Your task to perform on an android device: find photos in the google photos app Image 0: 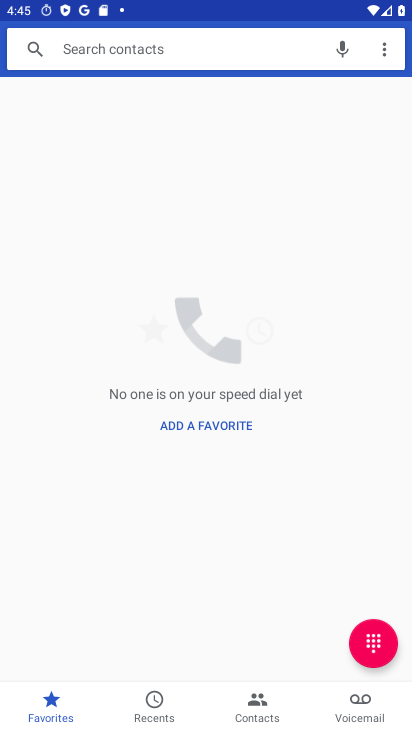
Step 0: press home button
Your task to perform on an android device: find photos in the google photos app Image 1: 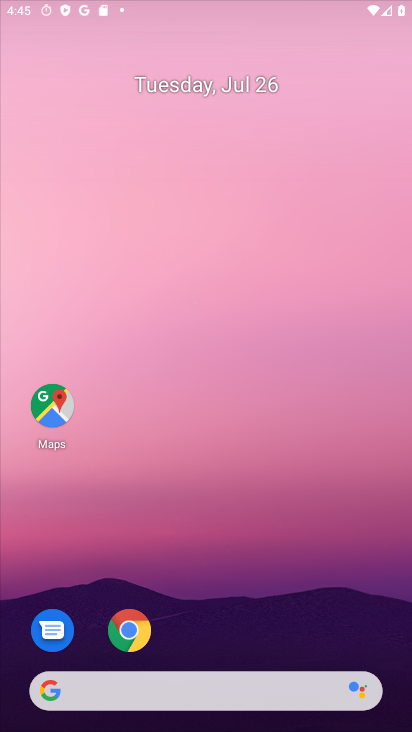
Step 1: drag from (295, 598) to (170, 120)
Your task to perform on an android device: find photos in the google photos app Image 2: 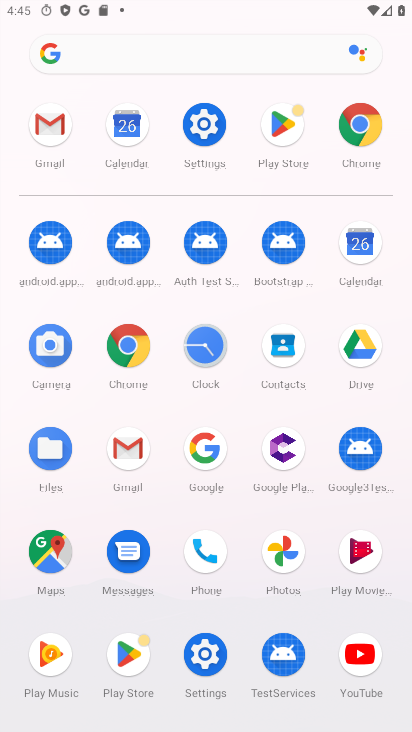
Step 2: click (289, 551)
Your task to perform on an android device: find photos in the google photos app Image 3: 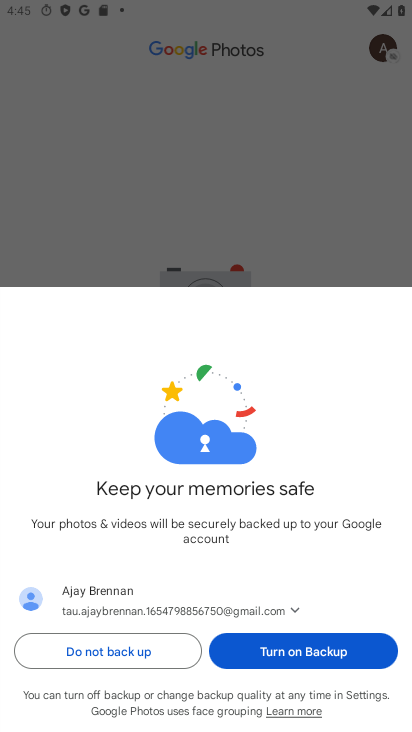
Step 3: click (251, 652)
Your task to perform on an android device: find photos in the google photos app Image 4: 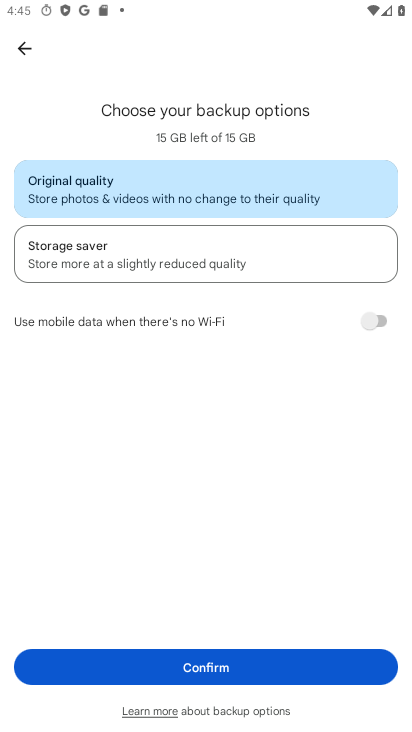
Step 4: click (240, 667)
Your task to perform on an android device: find photos in the google photos app Image 5: 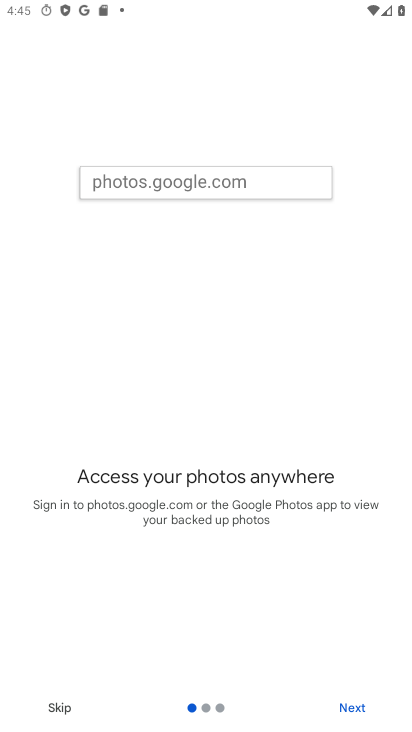
Step 5: click (359, 708)
Your task to perform on an android device: find photos in the google photos app Image 6: 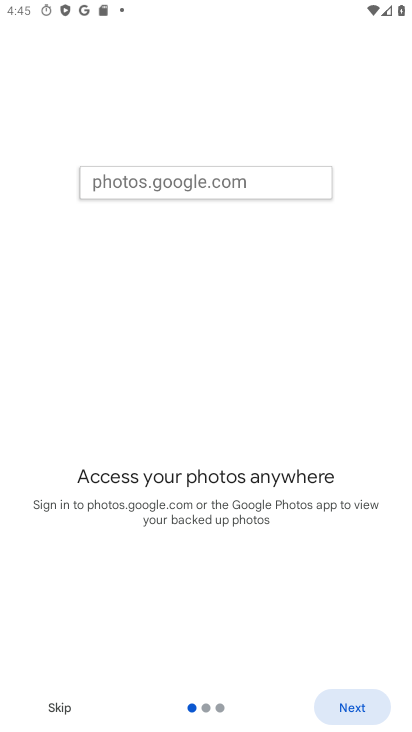
Step 6: click (359, 708)
Your task to perform on an android device: find photos in the google photos app Image 7: 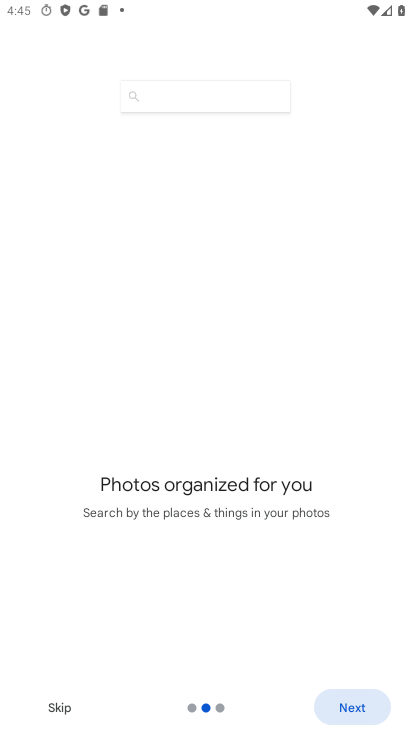
Step 7: click (359, 703)
Your task to perform on an android device: find photos in the google photos app Image 8: 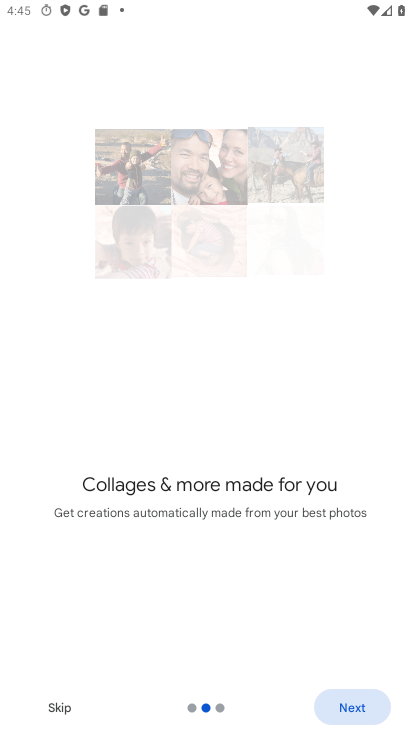
Step 8: click (359, 699)
Your task to perform on an android device: find photos in the google photos app Image 9: 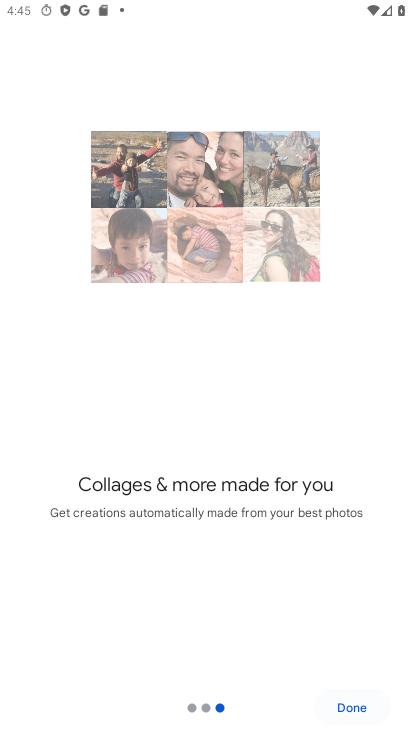
Step 9: click (359, 699)
Your task to perform on an android device: find photos in the google photos app Image 10: 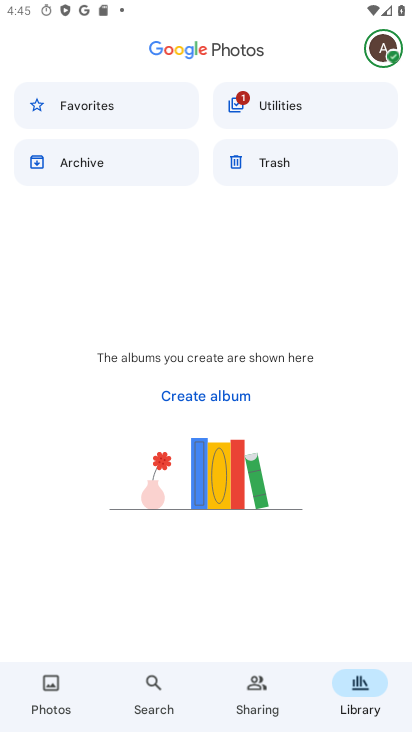
Step 10: click (60, 704)
Your task to perform on an android device: find photos in the google photos app Image 11: 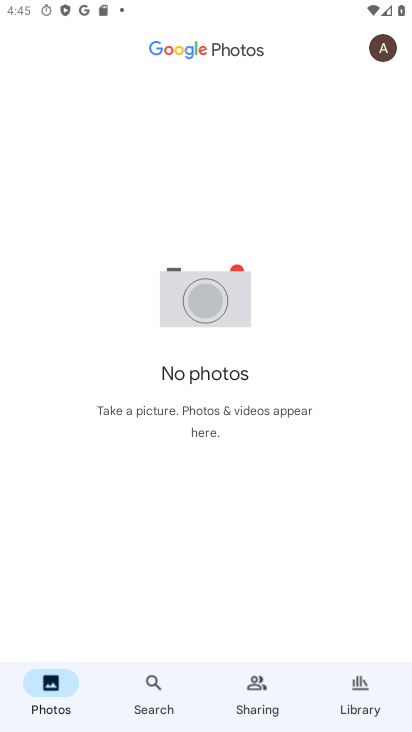
Step 11: task complete